Your task to perform on an android device: Turn on the flashlight Image 0: 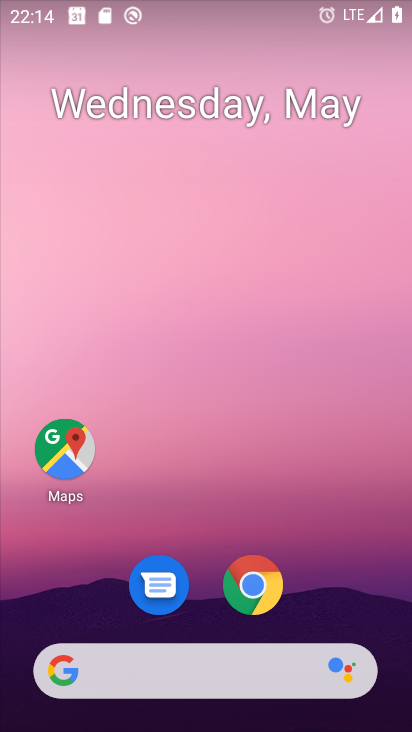
Step 0: drag from (360, 563) to (348, 65)
Your task to perform on an android device: Turn on the flashlight Image 1: 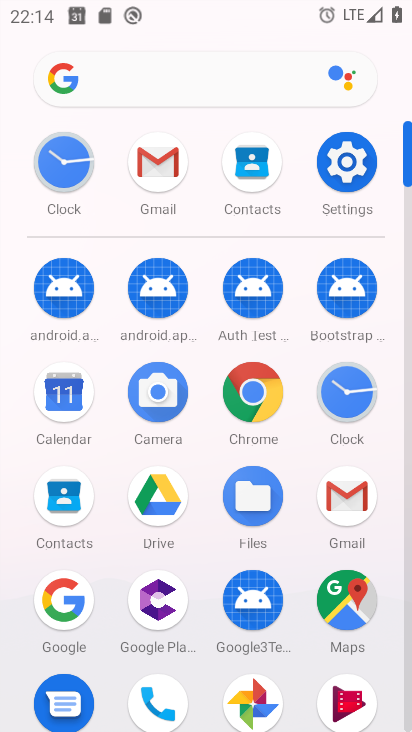
Step 1: click (349, 142)
Your task to perform on an android device: Turn on the flashlight Image 2: 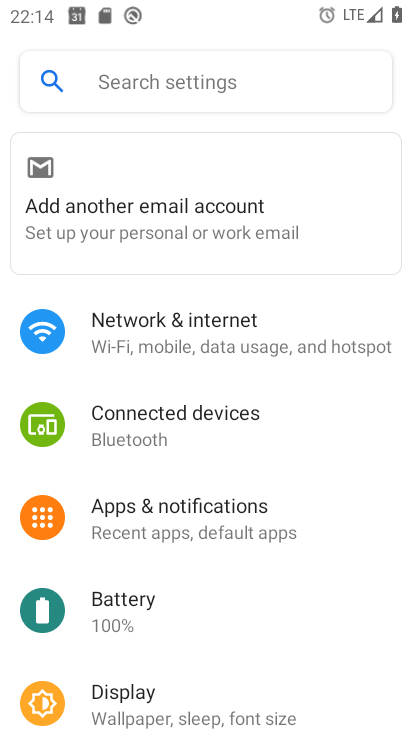
Step 2: click (258, 78)
Your task to perform on an android device: Turn on the flashlight Image 3: 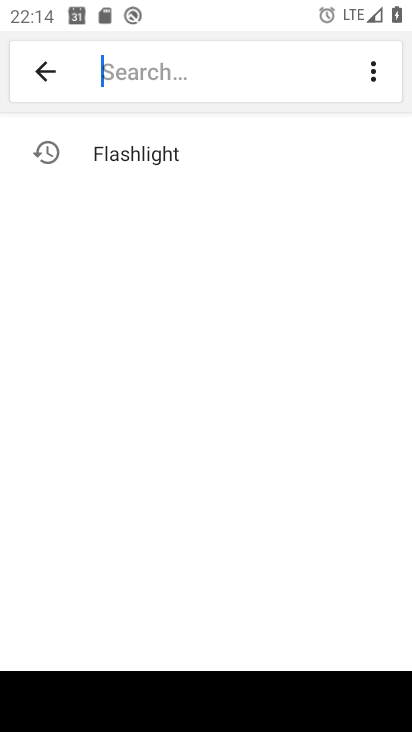
Step 3: click (165, 152)
Your task to perform on an android device: Turn on the flashlight Image 4: 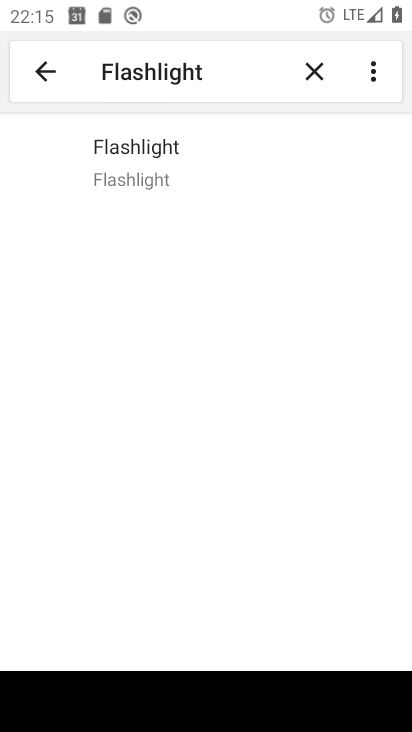
Step 4: click (127, 153)
Your task to perform on an android device: Turn on the flashlight Image 5: 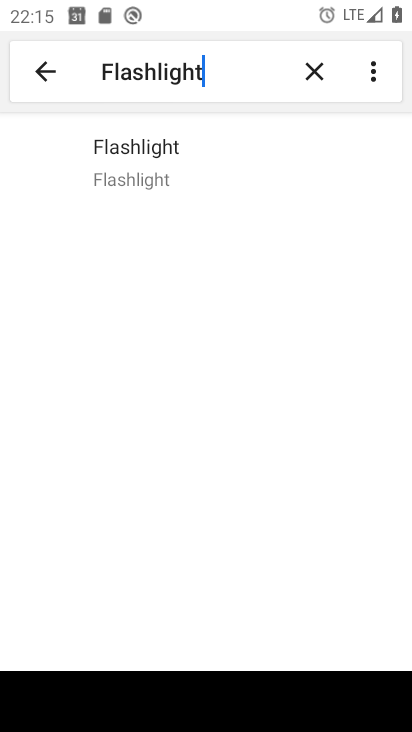
Step 5: task complete